Your task to perform on an android device: turn pop-ups off in chrome Image 0: 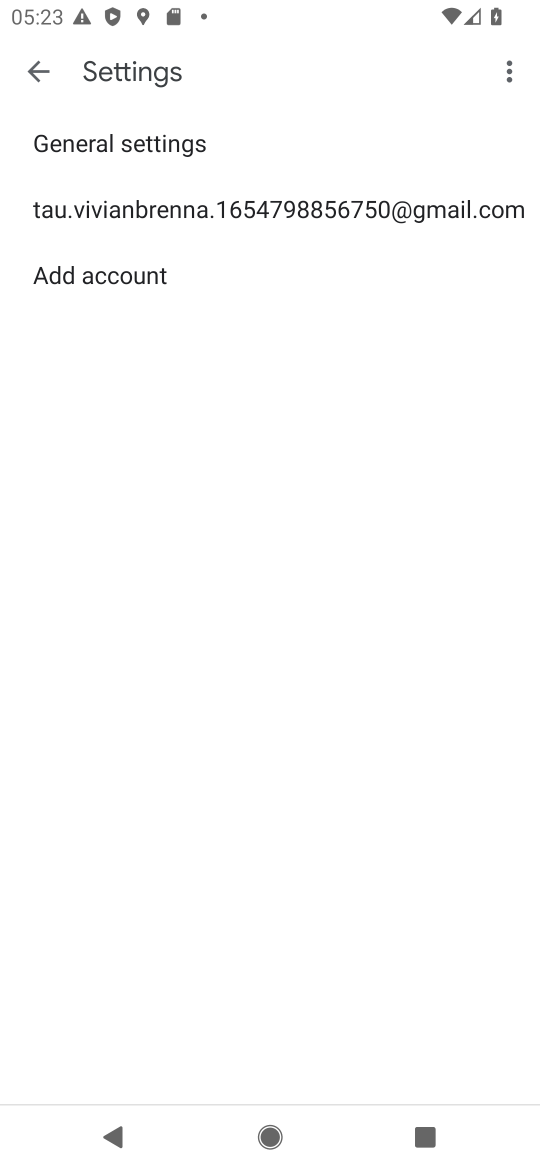
Step 0: press home button
Your task to perform on an android device: turn pop-ups off in chrome Image 1: 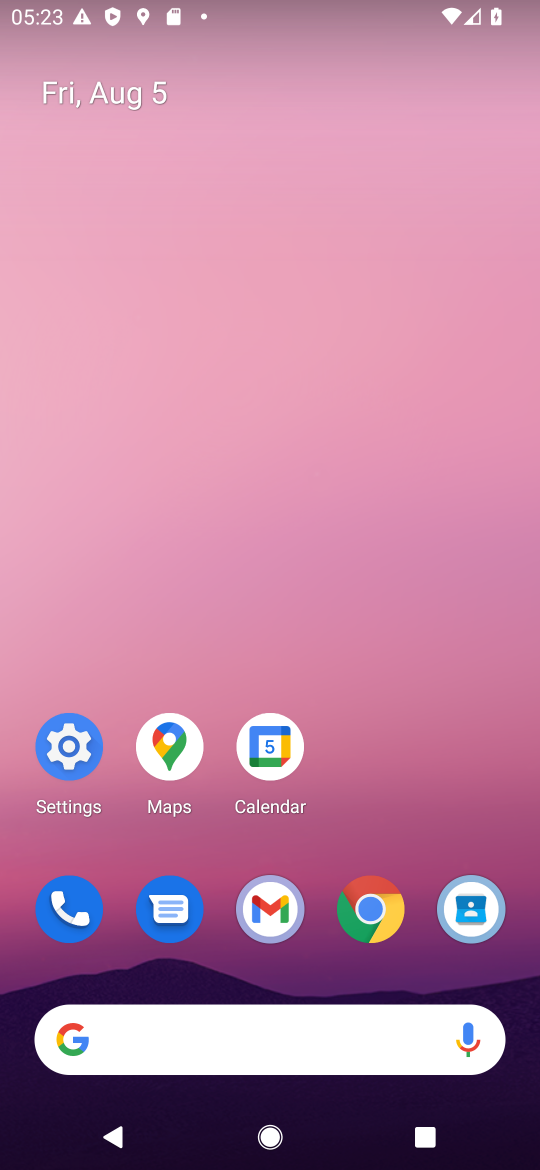
Step 1: click (369, 909)
Your task to perform on an android device: turn pop-ups off in chrome Image 2: 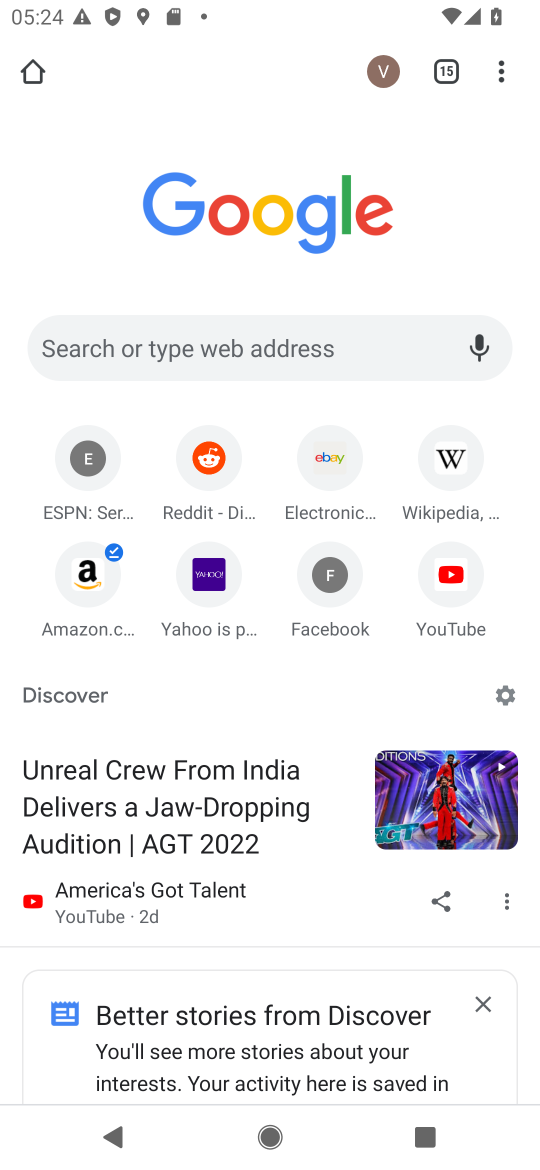
Step 2: click (507, 72)
Your task to perform on an android device: turn pop-ups off in chrome Image 3: 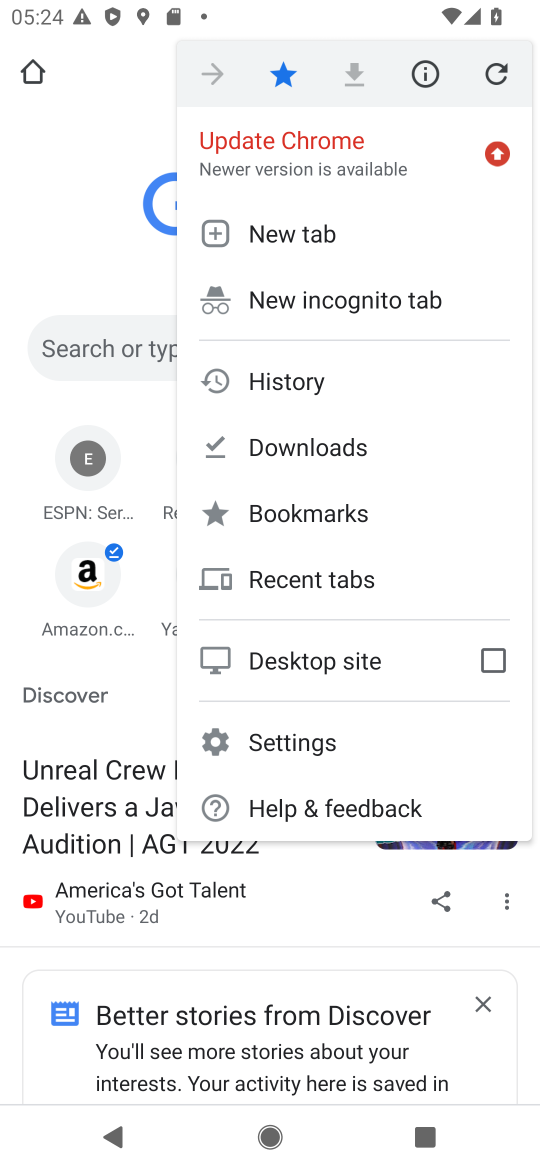
Step 3: click (266, 741)
Your task to perform on an android device: turn pop-ups off in chrome Image 4: 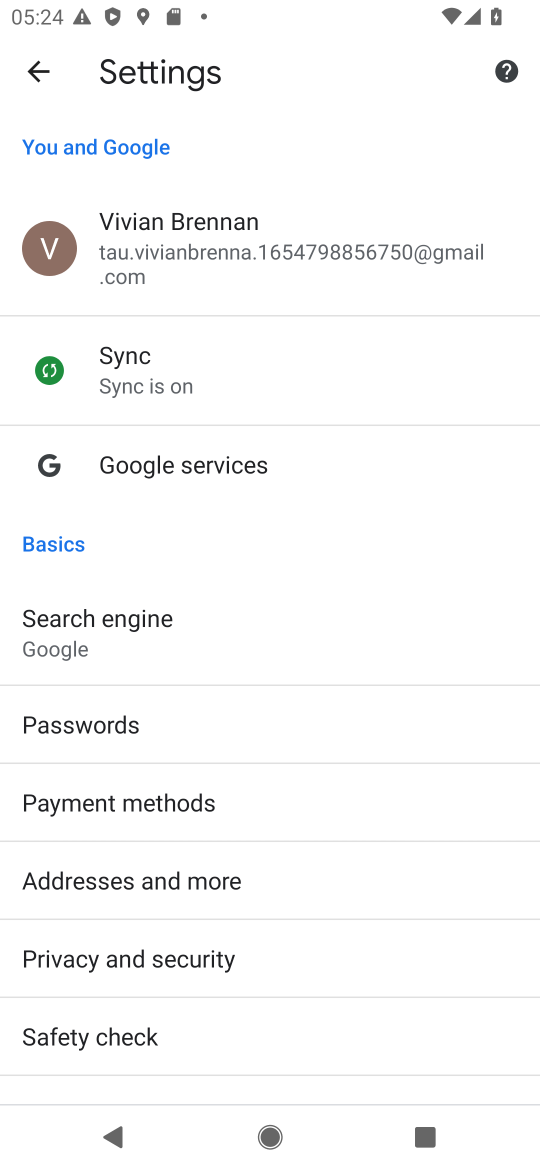
Step 4: drag from (245, 1012) to (198, 508)
Your task to perform on an android device: turn pop-ups off in chrome Image 5: 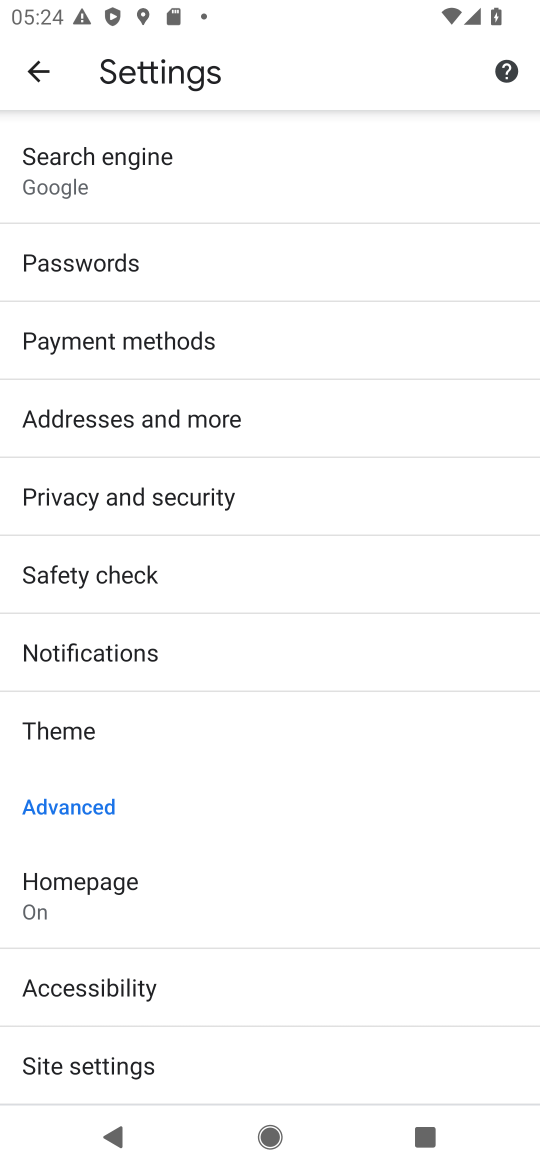
Step 5: drag from (251, 943) to (244, 507)
Your task to perform on an android device: turn pop-ups off in chrome Image 6: 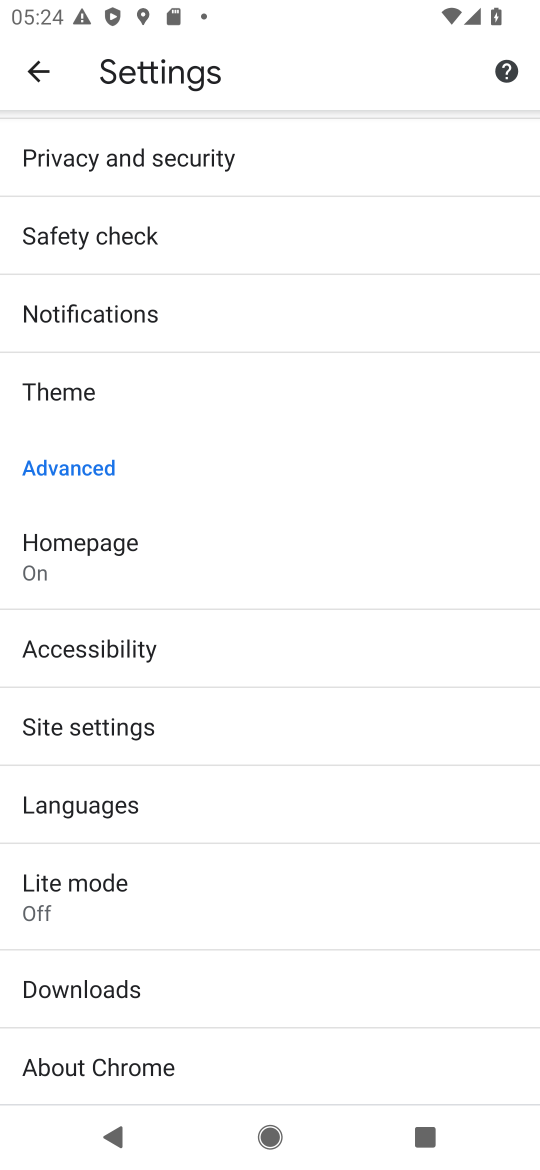
Step 6: click (55, 721)
Your task to perform on an android device: turn pop-ups off in chrome Image 7: 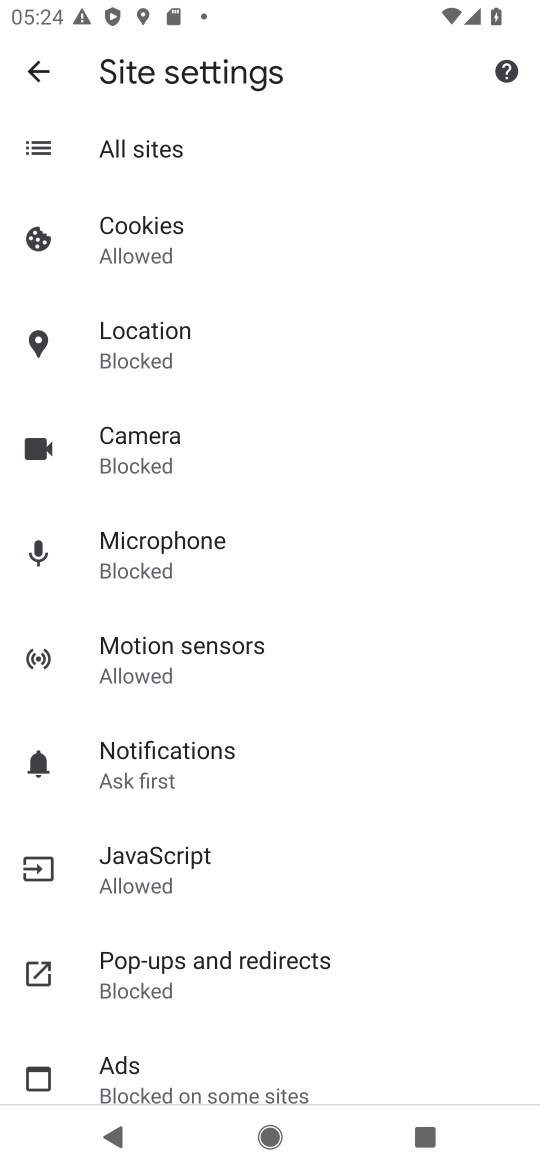
Step 7: click (149, 963)
Your task to perform on an android device: turn pop-ups off in chrome Image 8: 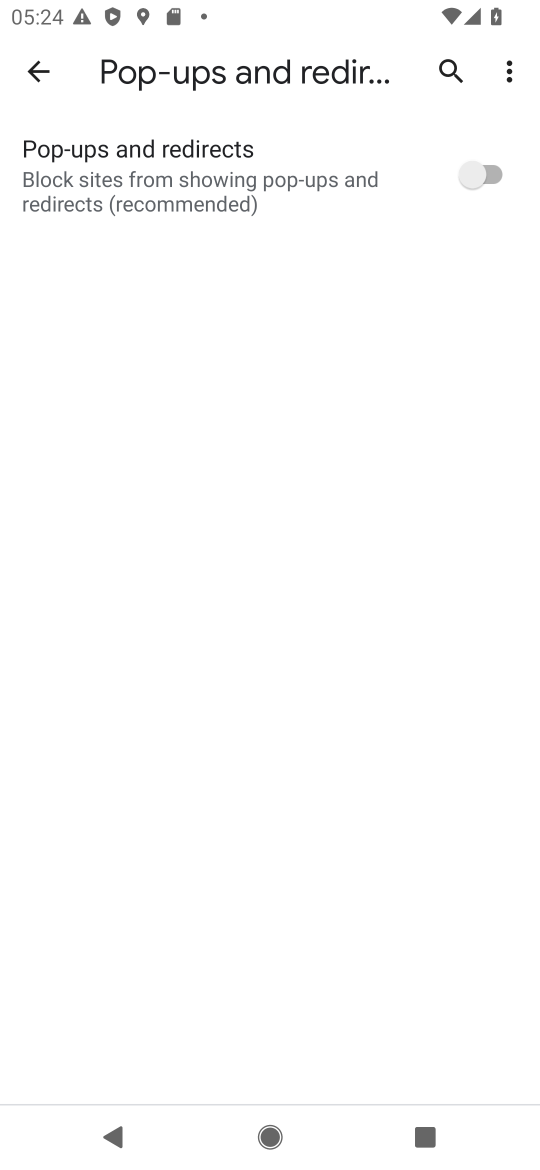
Step 8: task complete